Your task to perform on an android device: Is it going to rain tomorrow? Image 0: 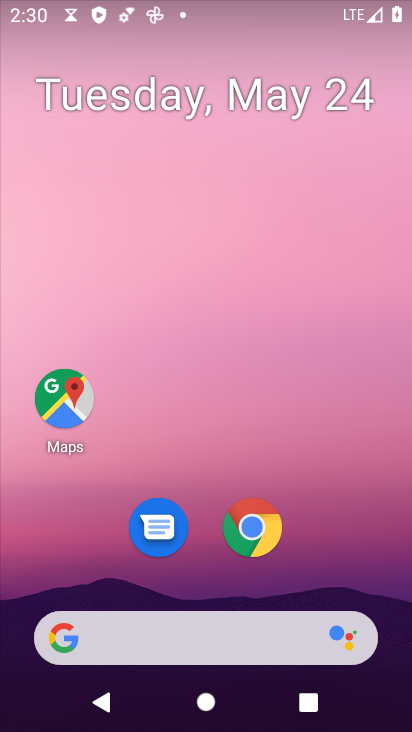
Step 0: press home button
Your task to perform on an android device: Is it going to rain tomorrow? Image 1: 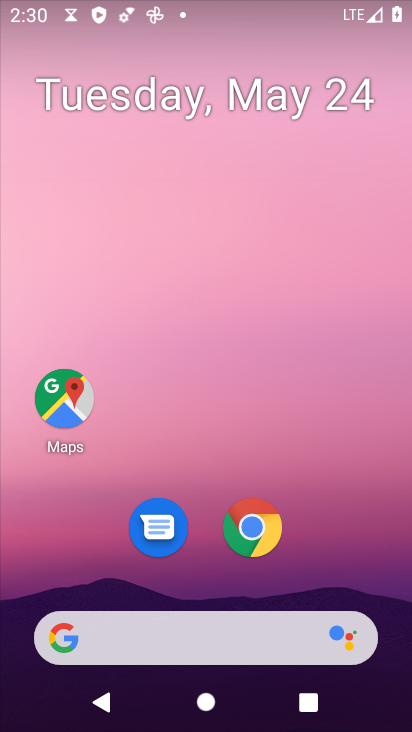
Step 1: click (73, 636)
Your task to perform on an android device: Is it going to rain tomorrow? Image 2: 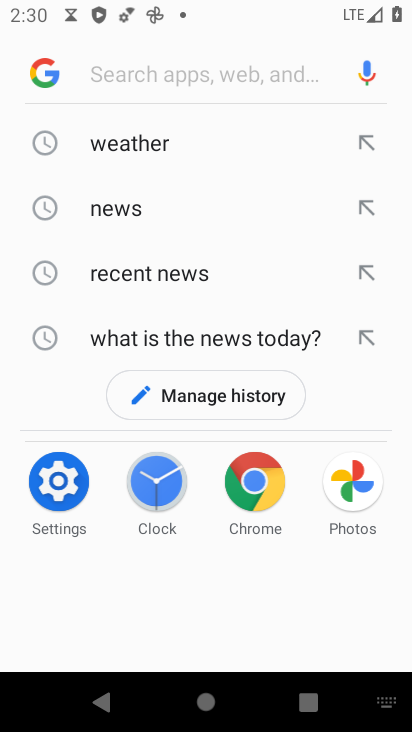
Step 2: click (151, 141)
Your task to perform on an android device: Is it going to rain tomorrow? Image 3: 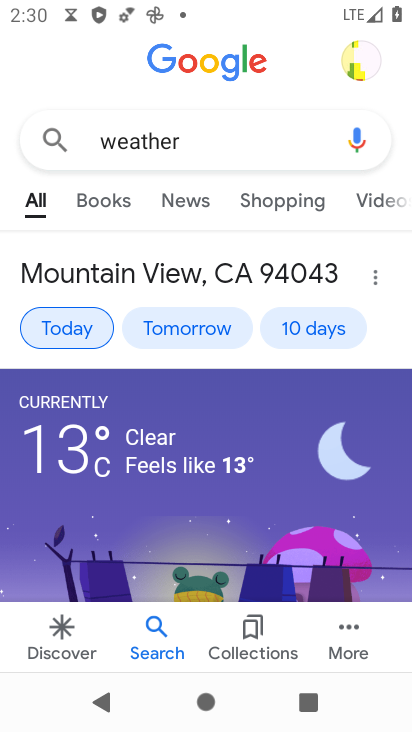
Step 3: click (213, 328)
Your task to perform on an android device: Is it going to rain tomorrow? Image 4: 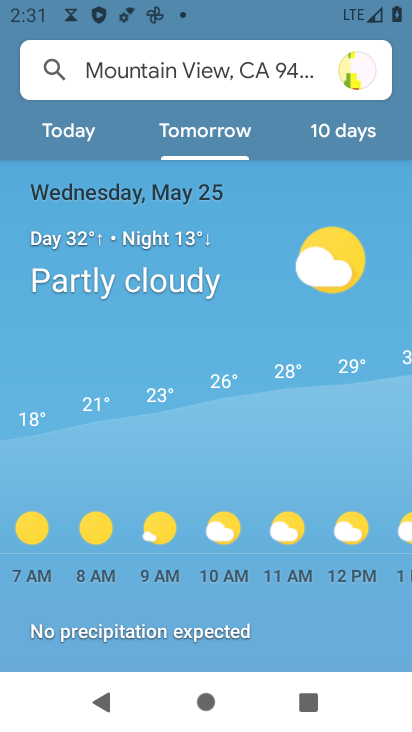
Step 4: task complete